Your task to perform on an android device: turn on showing notifications on the lock screen Image 0: 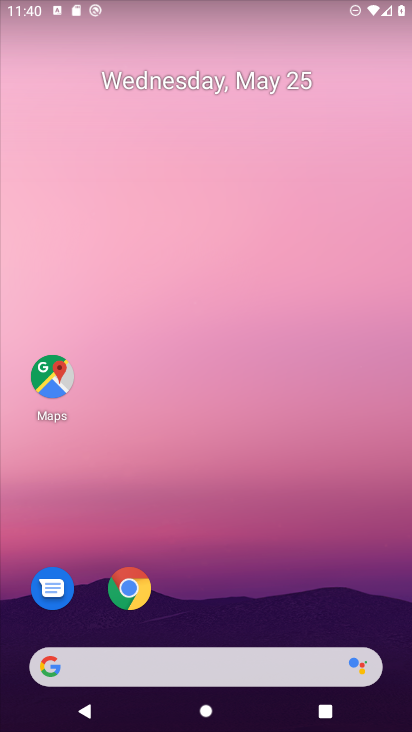
Step 0: press home button
Your task to perform on an android device: turn on showing notifications on the lock screen Image 1: 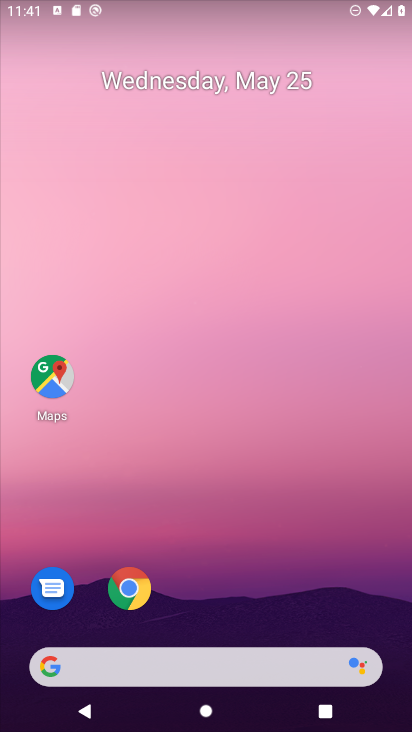
Step 1: drag from (24, 521) to (201, 196)
Your task to perform on an android device: turn on showing notifications on the lock screen Image 2: 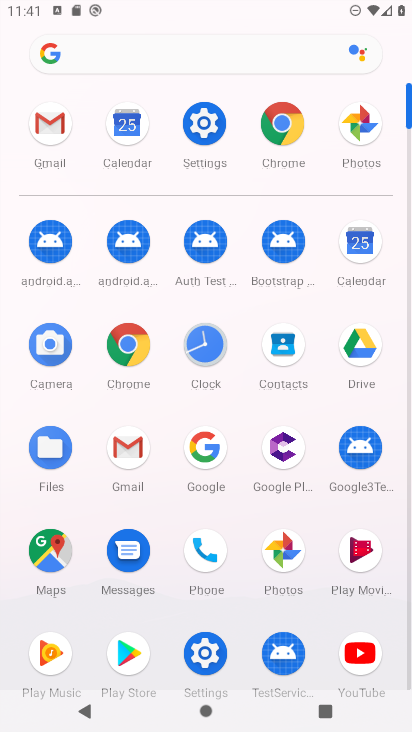
Step 2: click (205, 120)
Your task to perform on an android device: turn on showing notifications on the lock screen Image 3: 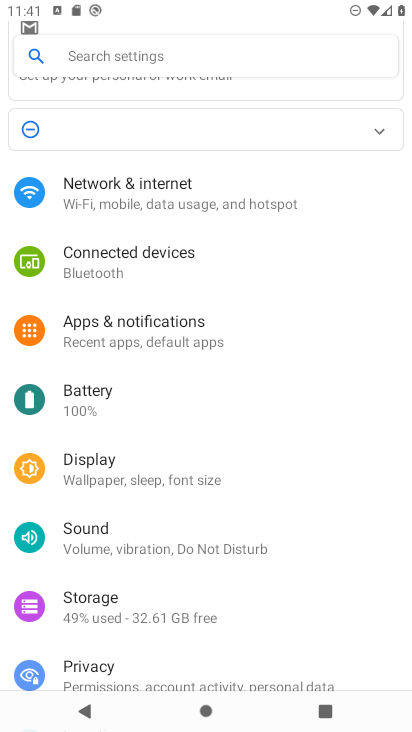
Step 3: click (139, 337)
Your task to perform on an android device: turn on showing notifications on the lock screen Image 4: 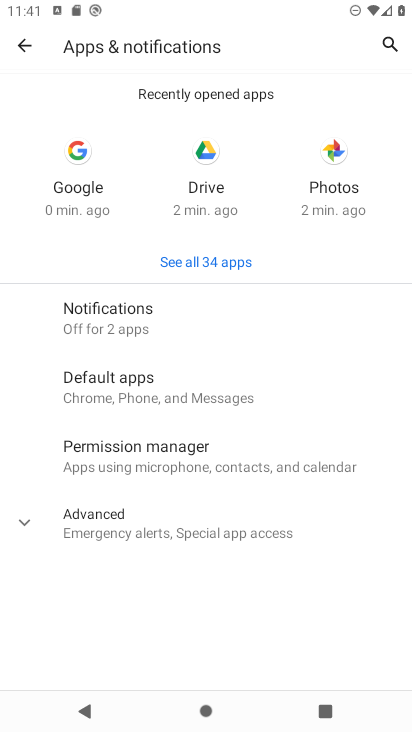
Step 4: click (154, 321)
Your task to perform on an android device: turn on showing notifications on the lock screen Image 5: 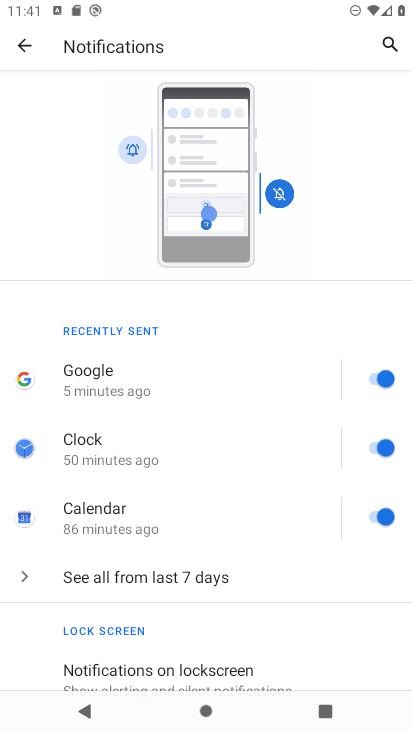
Step 5: drag from (66, 664) to (182, 316)
Your task to perform on an android device: turn on showing notifications on the lock screen Image 6: 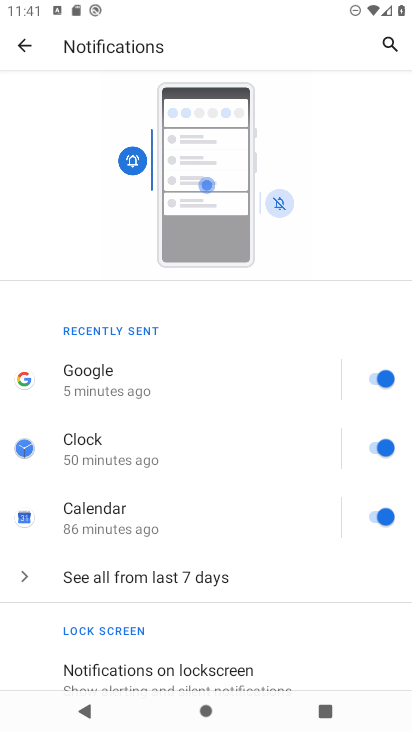
Step 6: click (121, 679)
Your task to perform on an android device: turn on showing notifications on the lock screen Image 7: 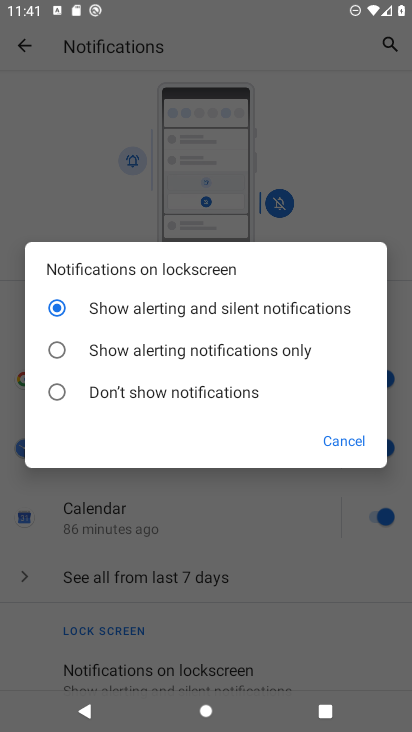
Step 7: task complete